Your task to perform on an android device: Open eBay Image 0: 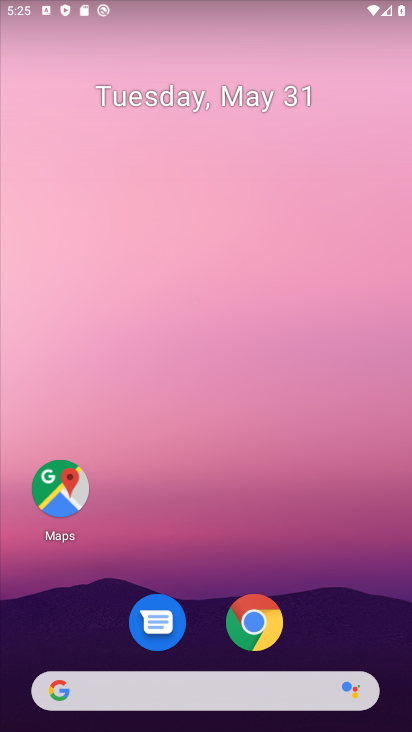
Step 0: drag from (298, 664) to (384, 75)
Your task to perform on an android device: Open eBay Image 1: 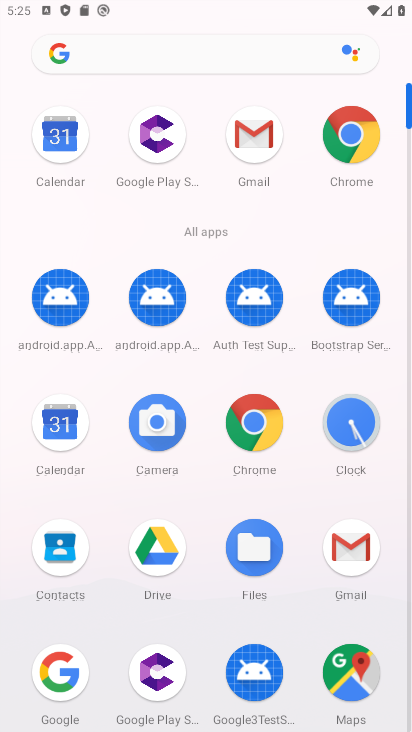
Step 1: click (259, 432)
Your task to perform on an android device: Open eBay Image 2: 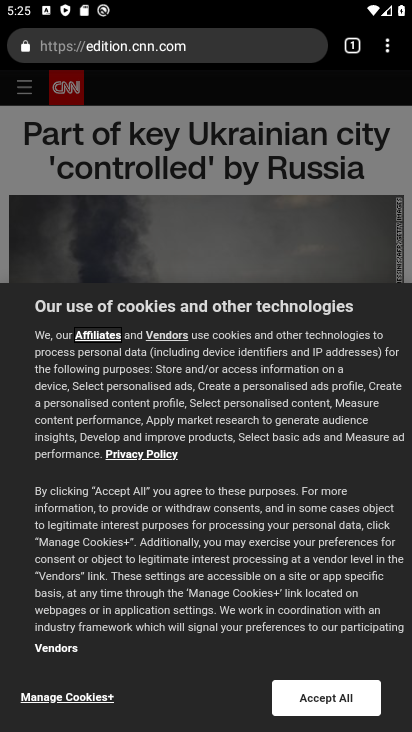
Step 2: click (170, 51)
Your task to perform on an android device: Open eBay Image 3: 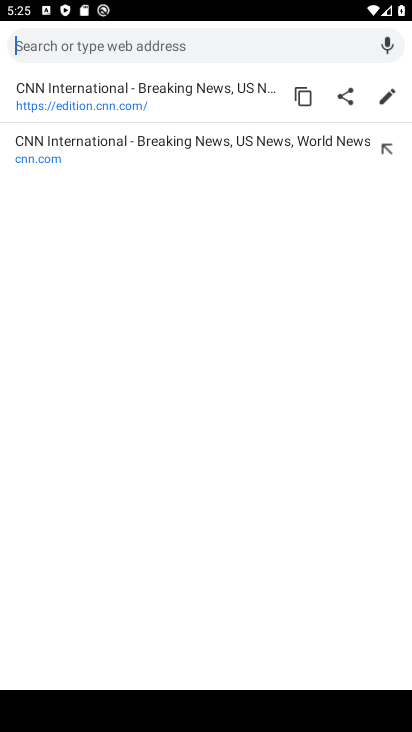
Step 3: type "ebay"
Your task to perform on an android device: Open eBay Image 4: 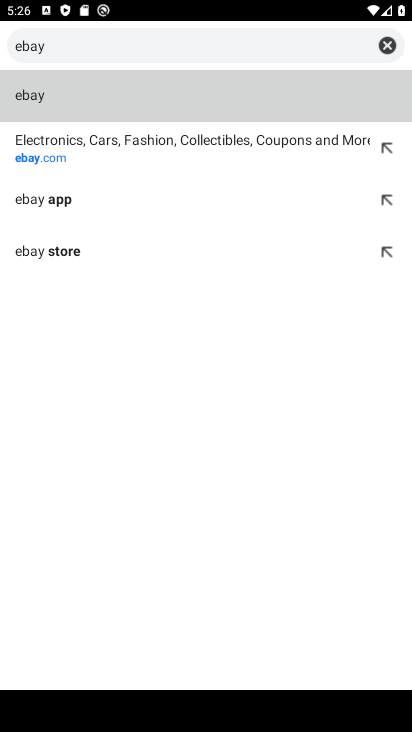
Step 4: click (53, 145)
Your task to perform on an android device: Open eBay Image 5: 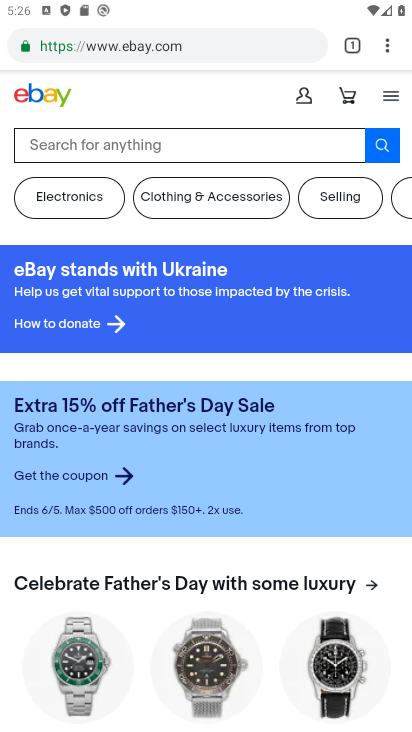
Step 5: task complete